Your task to perform on an android device: Open ESPN.com Image 0: 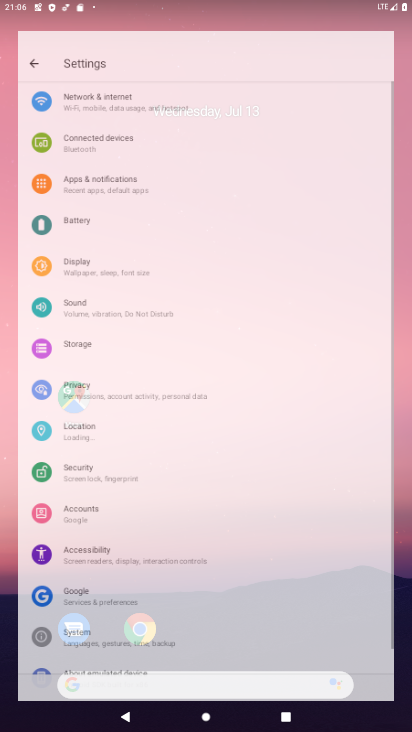
Step 0: drag from (261, 632) to (229, 504)
Your task to perform on an android device: Open ESPN.com Image 1: 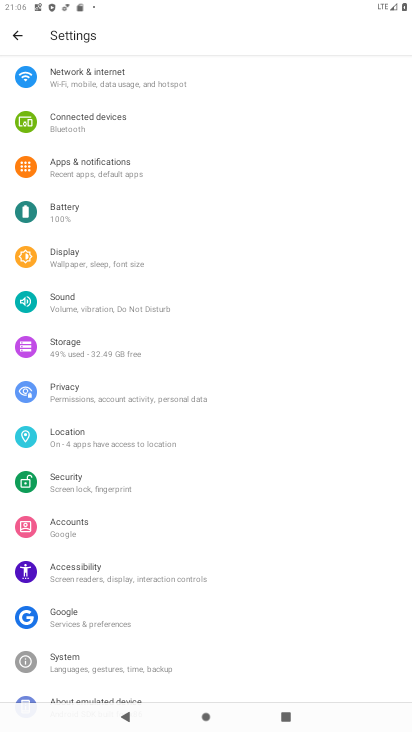
Step 1: press home button
Your task to perform on an android device: Open ESPN.com Image 2: 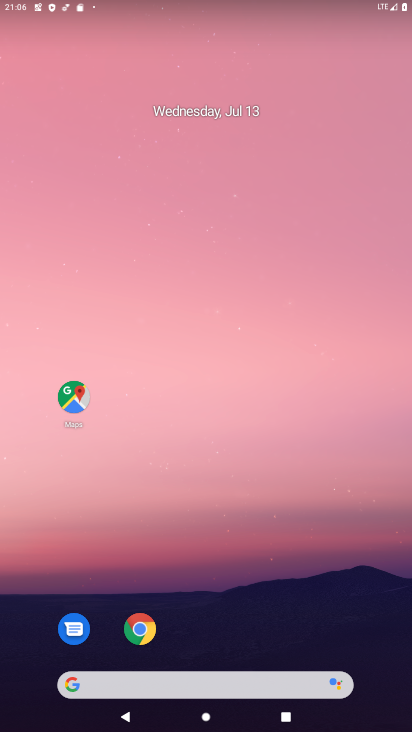
Step 2: click (146, 627)
Your task to perform on an android device: Open ESPN.com Image 3: 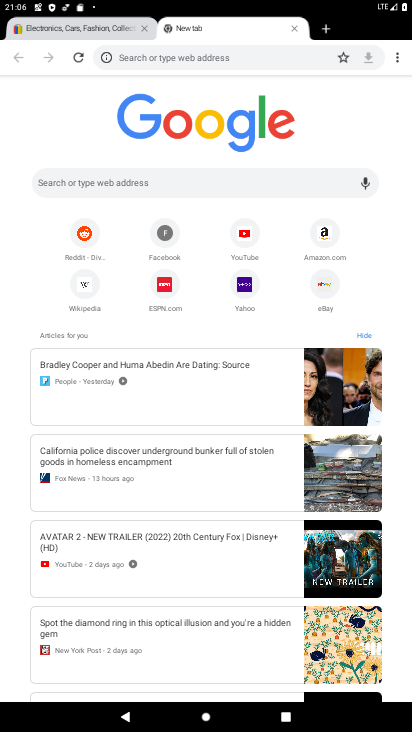
Step 3: click (210, 55)
Your task to perform on an android device: Open ESPN.com Image 4: 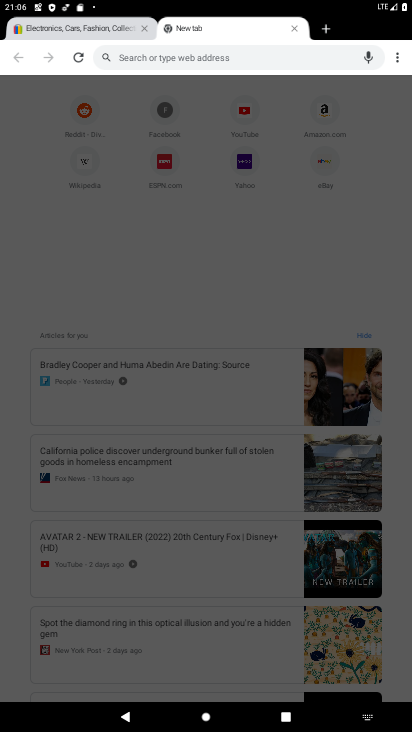
Step 4: type "ESPN.com"
Your task to perform on an android device: Open ESPN.com Image 5: 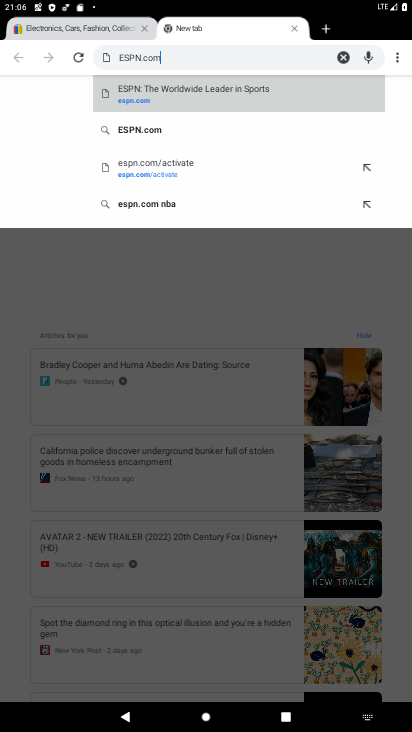
Step 5: click (127, 97)
Your task to perform on an android device: Open ESPN.com Image 6: 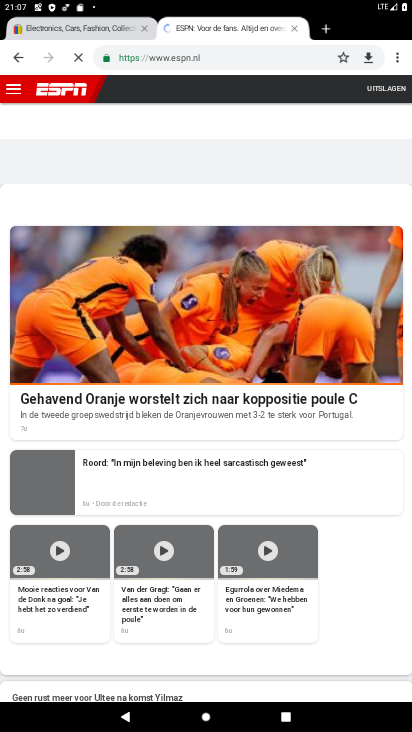
Step 6: task complete